Your task to perform on an android device: Is it going to rain this weekend? Image 0: 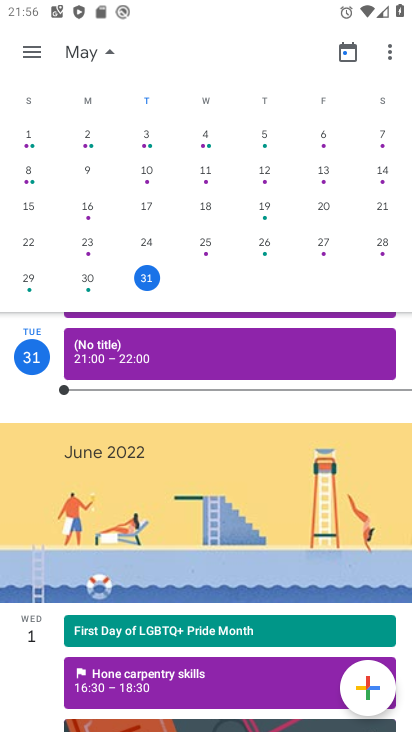
Step 0: press home button
Your task to perform on an android device: Is it going to rain this weekend? Image 1: 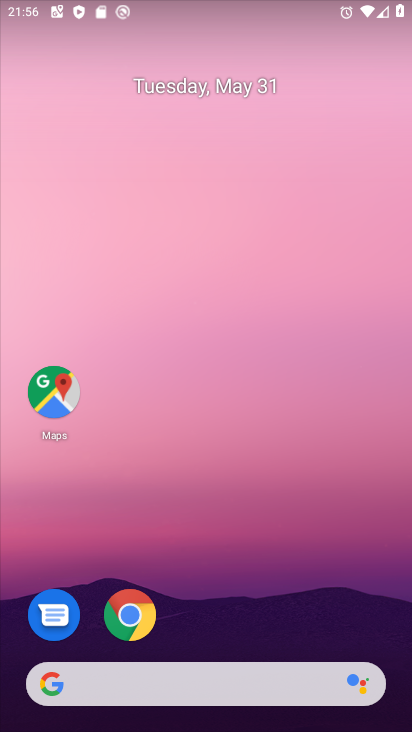
Step 1: drag from (211, 634) to (235, 305)
Your task to perform on an android device: Is it going to rain this weekend? Image 2: 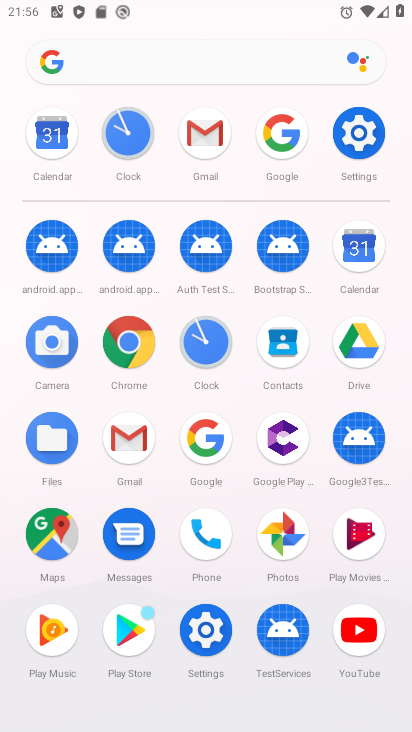
Step 2: click (186, 435)
Your task to perform on an android device: Is it going to rain this weekend? Image 3: 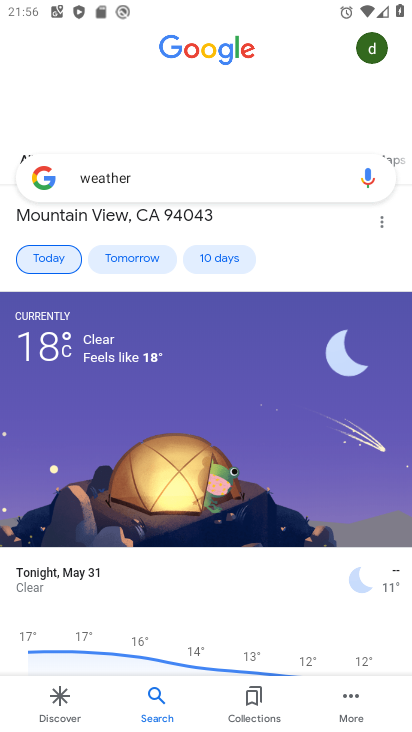
Step 3: click (184, 179)
Your task to perform on an android device: Is it going to rain this weekend? Image 4: 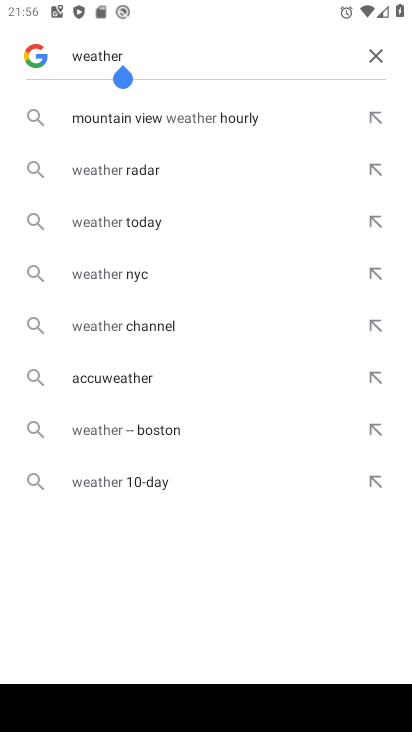
Step 4: click (174, 220)
Your task to perform on an android device: Is it going to rain this weekend? Image 5: 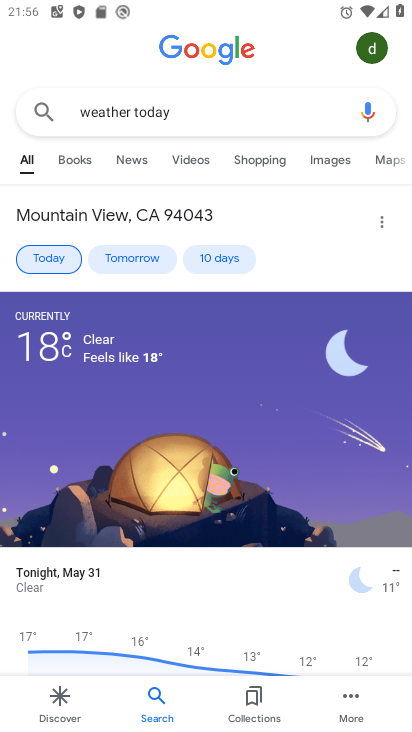
Step 5: click (228, 241)
Your task to perform on an android device: Is it going to rain this weekend? Image 6: 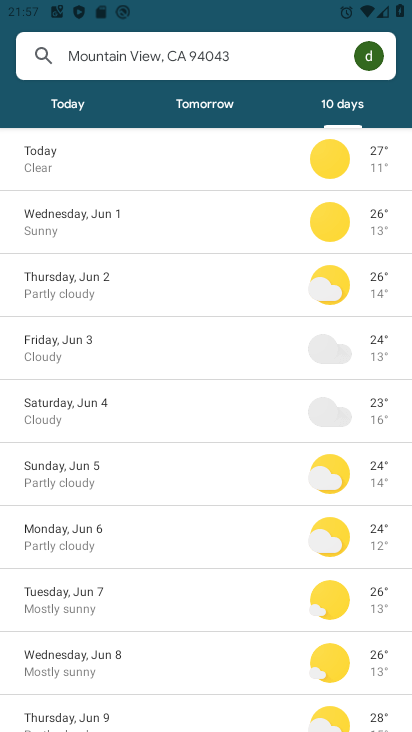
Step 6: task complete